Your task to perform on an android device: turn notification dots off Image 0: 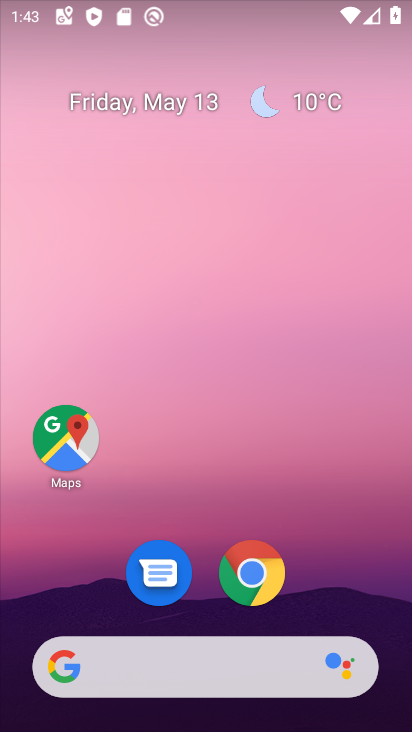
Step 0: drag from (348, 546) to (253, 54)
Your task to perform on an android device: turn notification dots off Image 1: 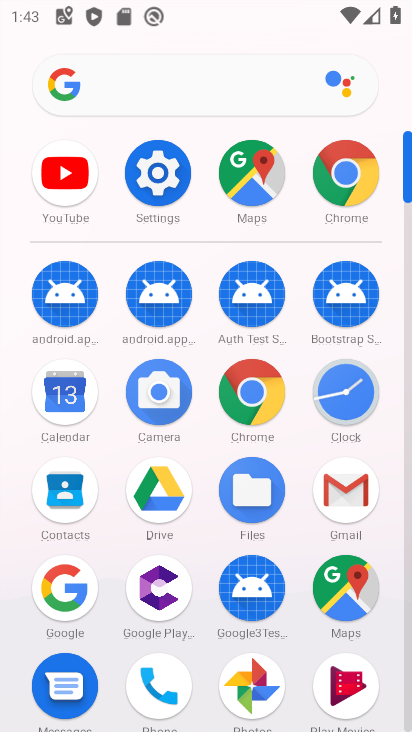
Step 1: drag from (11, 577) to (26, 230)
Your task to perform on an android device: turn notification dots off Image 2: 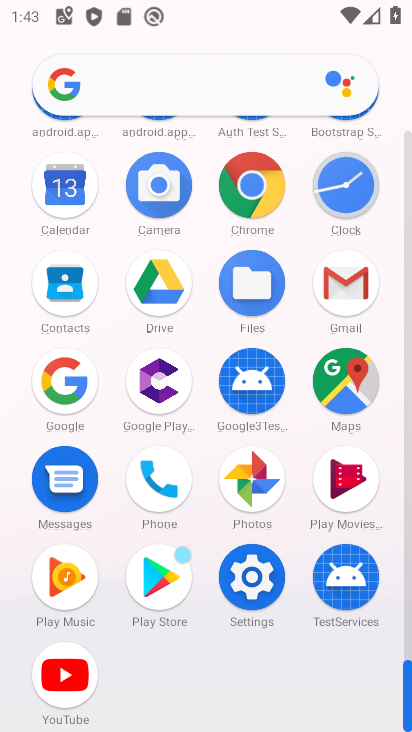
Step 2: click (250, 574)
Your task to perform on an android device: turn notification dots off Image 3: 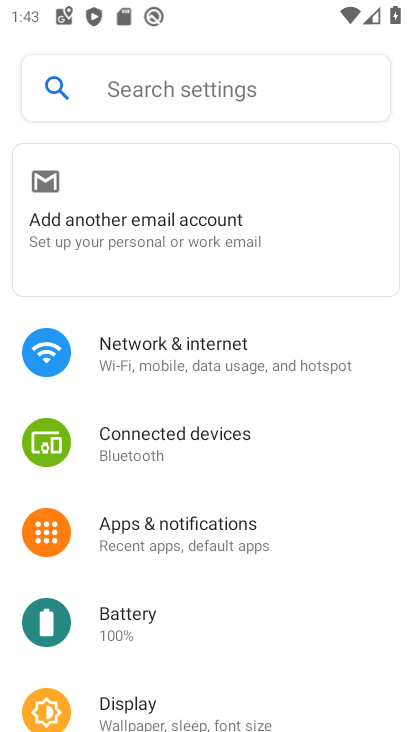
Step 3: drag from (261, 656) to (289, 206)
Your task to perform on an android device: turn notification dots off Image 4: 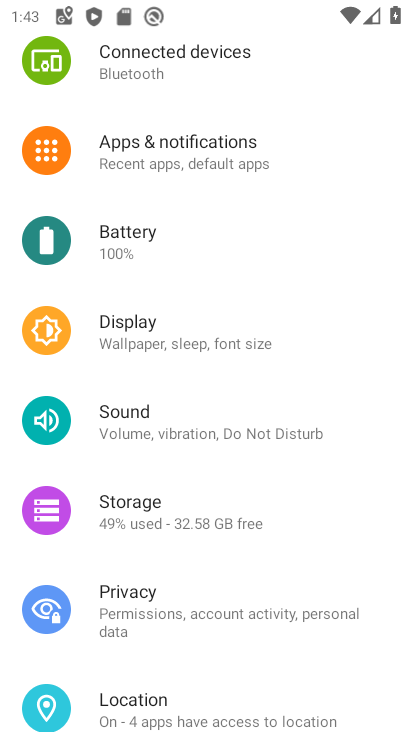
Step 4: drag from (175, 616) to (231, 156)
Your task to perform on an android device: turn notification dots off Image 5: 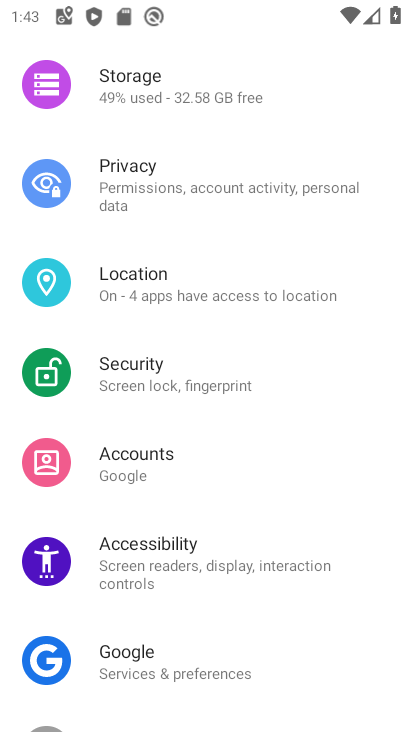
Step 5: drag from (261, 274) to (259, 622)
Your task to perform on an android device: turn notification dots off Image 6: 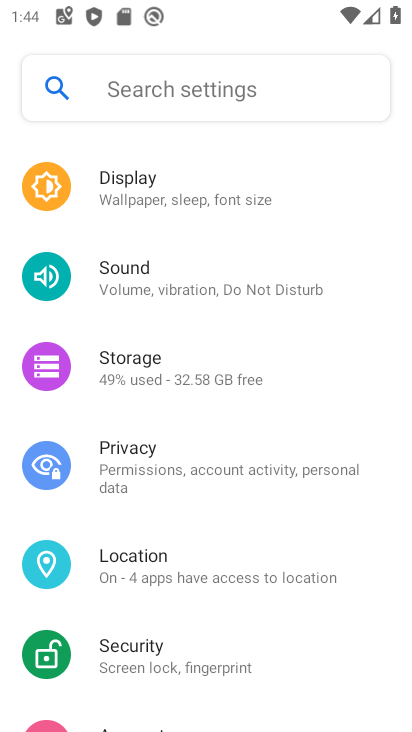
Step 6: drag from (273, 212) to (294, 574)
Your task to perform on an android device: turn notification dots off Image 7: 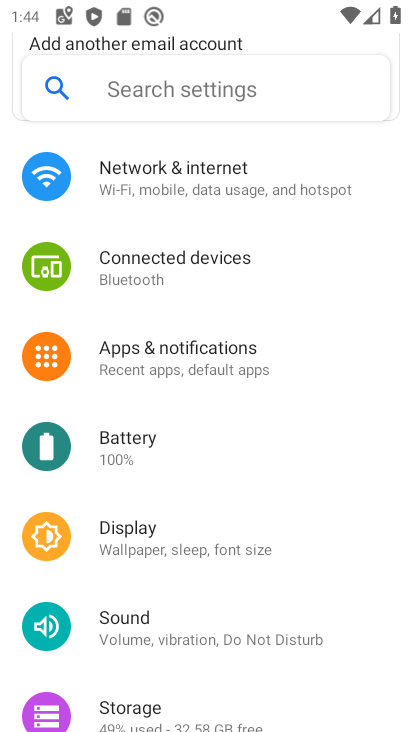
Step 7: click (210, 358)
Your task to perform on an android device: turn notification dots off Image 8: 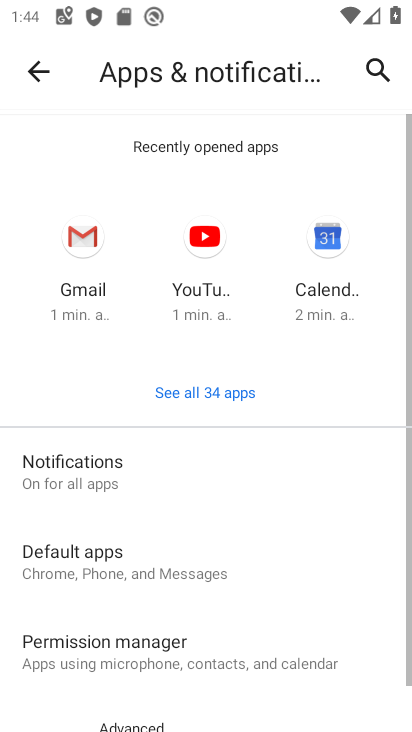
Step 8: click (139, 473)
Your task to perform on an android device: turn notification dots off Image 9: 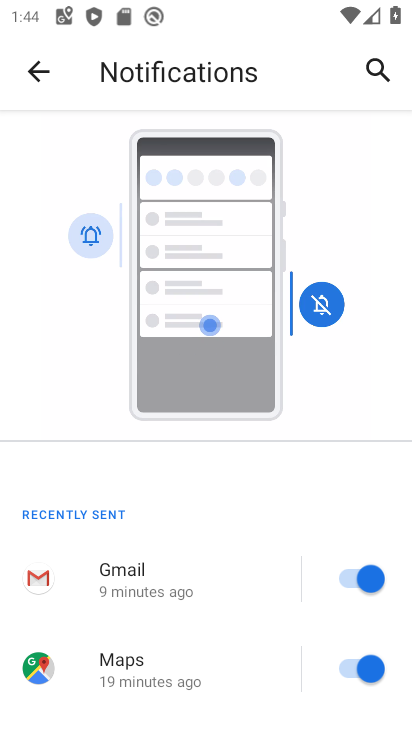
Step 9: drag from (220, 582) to (235, 134)
Your task to perform on an android device: turn notification dots off Image 10: 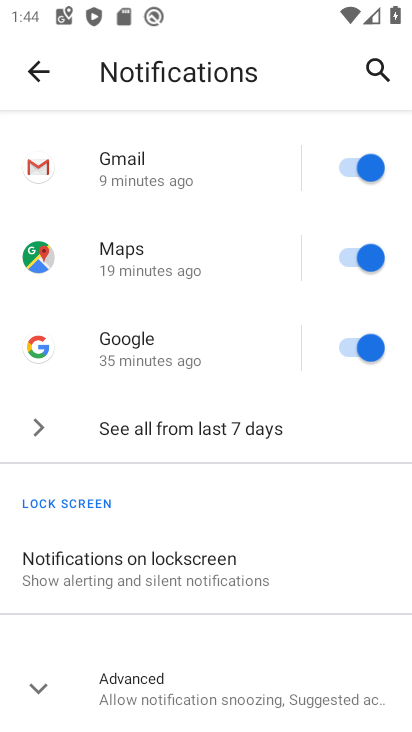
Step 10: drag from (228, 536) to (220, 146)
Your task to perform on an android device: turn notification dots off Image 11: 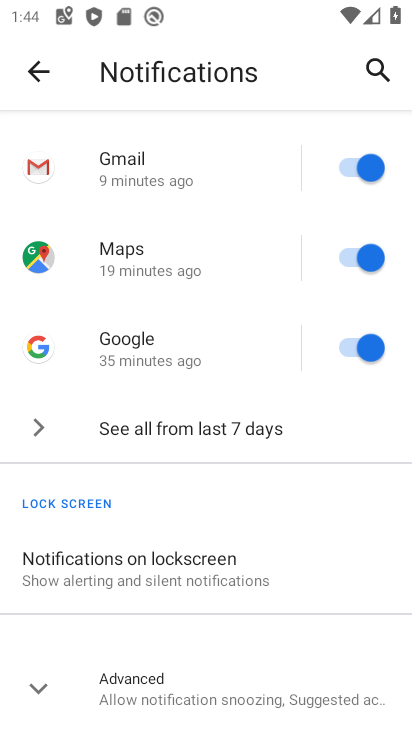
Step 11: click (130, 562)
Your task to perform on an android device: turn notification dots off Image 12: 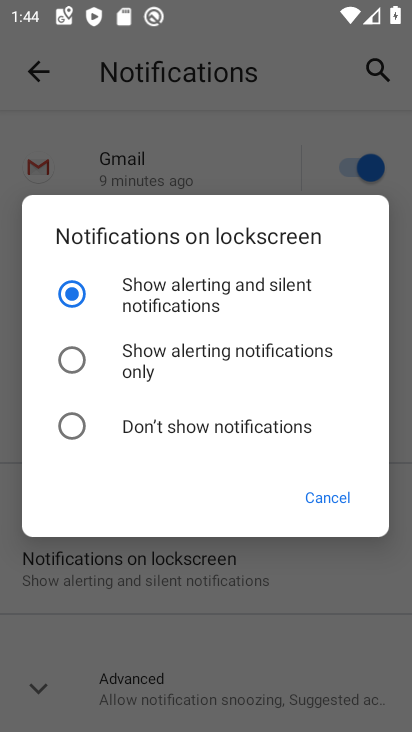
Step 12: click (116, 292)
Your task to perform on an android device: turn notification dots off Image 13: 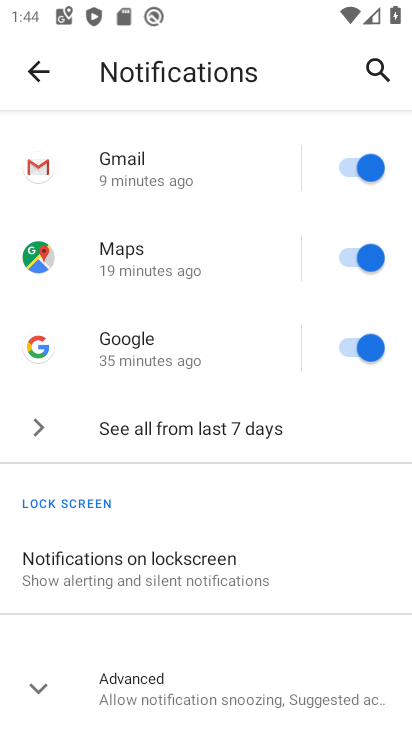
Step 13: click (25, 678)
Your task to perform on an android device: turn notification dots off Image 14: 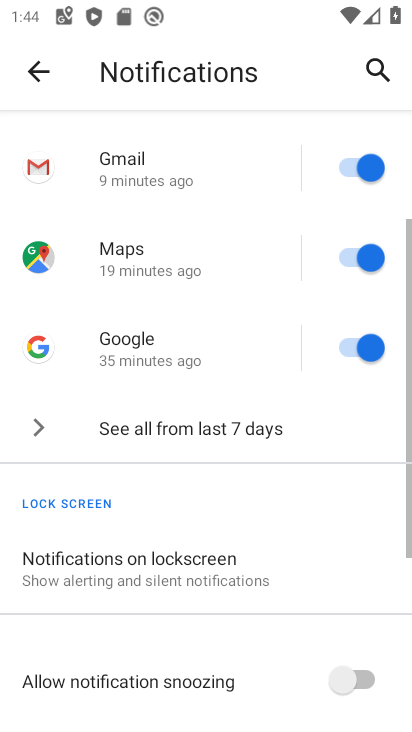
Step 14: drag from (183, 647) to (219, 193)
Your task to perform on an android device: turn notification dots off Image 15: 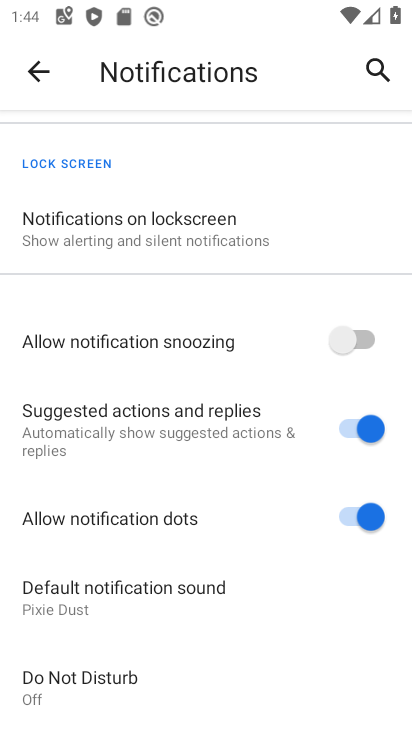
Step 15: click (354, 510)
Your task to perform on an android device: turn notification dots off Image 16: 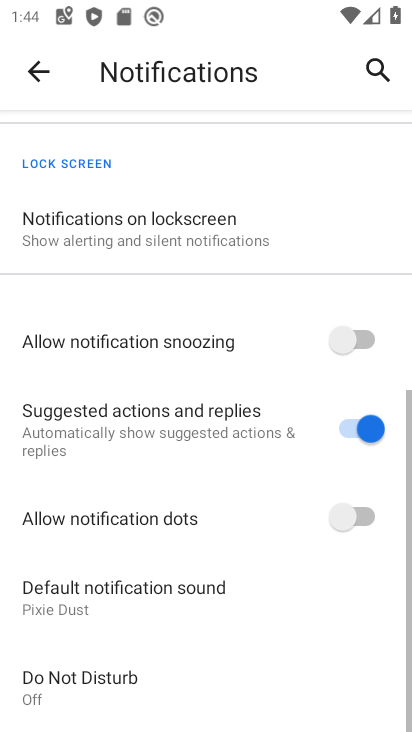
Step 16: task complete